Your task to perform on an android device: Go to battery settings Image 0: 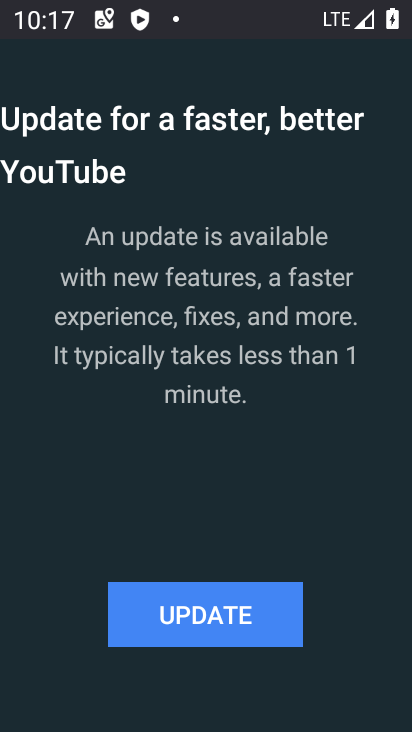
Step 0: press home button
Your task to perform on an android device: Go to battery settings Image 1: 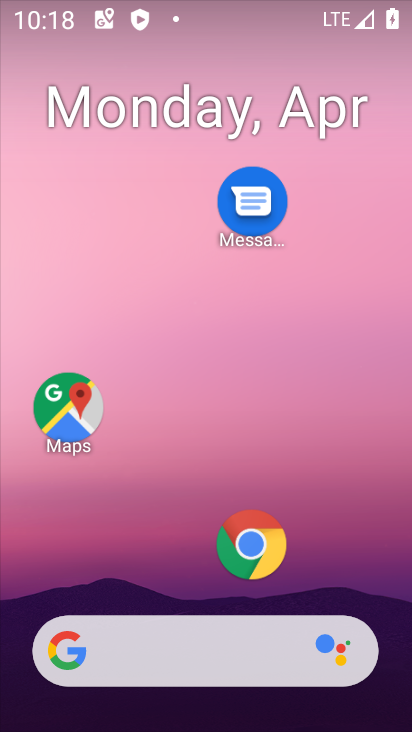
Step 1: drag from (204, 569) to (226, 28)
Your task to perform on an android device: Go to battery settings Image 2: 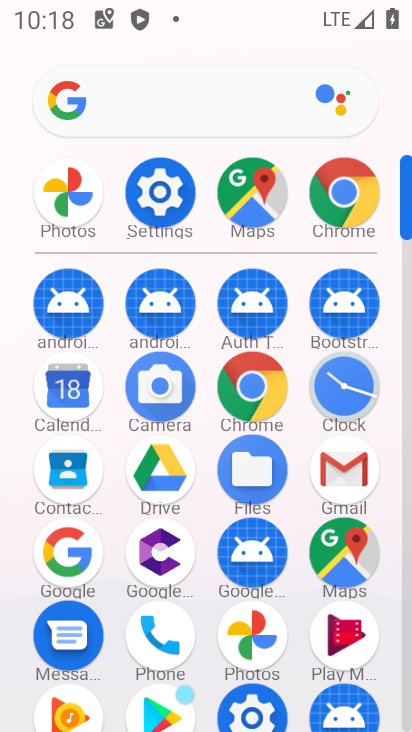
Step 2: click (158, 187)
Your task to perform on an android device: Go to battery settings Image 3: 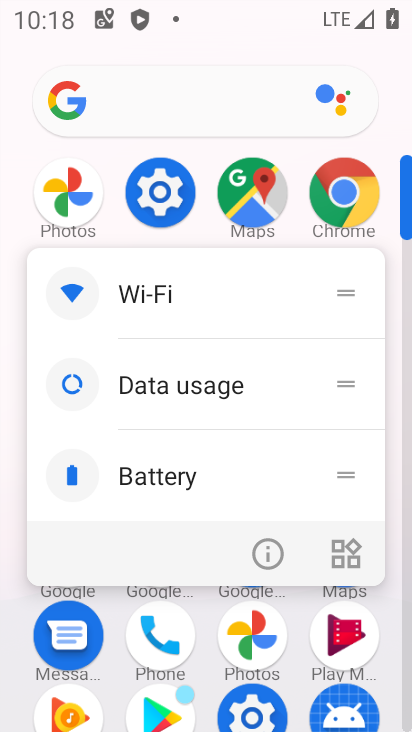
Step 3: click (158, 186)
Your task to perform on an android device: Go to battery settings Image 4: 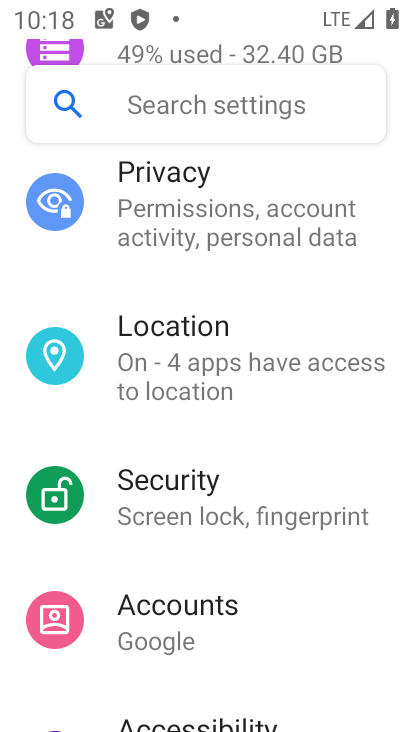
Step 4: drag from (176, 196) to (178, 721)
Your task to perform on an android device: Go to battery settings Image 5: 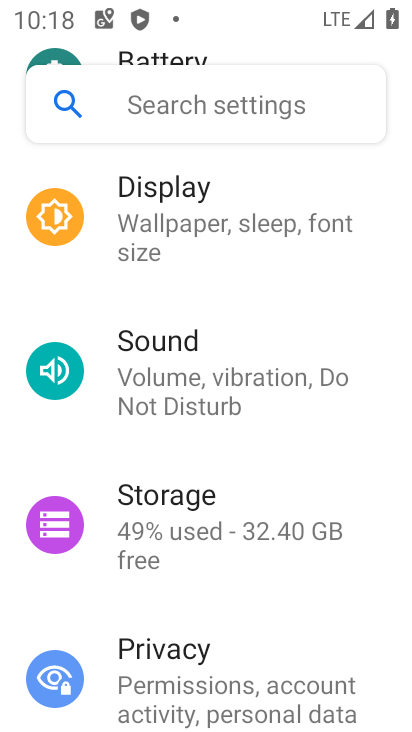
Step 5: drag from (157, 223) to (202, 709)
Your task to perform on an android device: Go to battery settings Image 6: 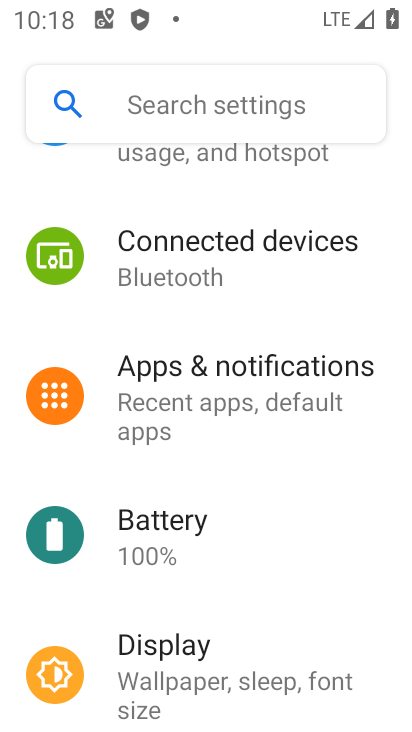
Step 6: click (102, 527)
Your task to perform on an android device: Go to battery settings Image 7: 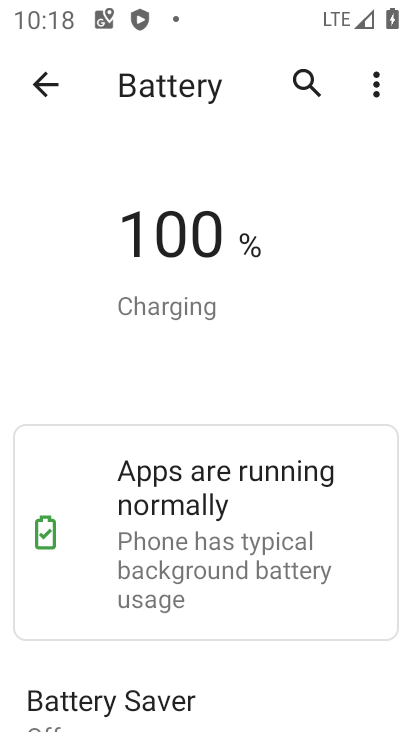
Step 7: task complete